Your task to perform on an android device: remove spam from my inbox in the gmail app Image 0: 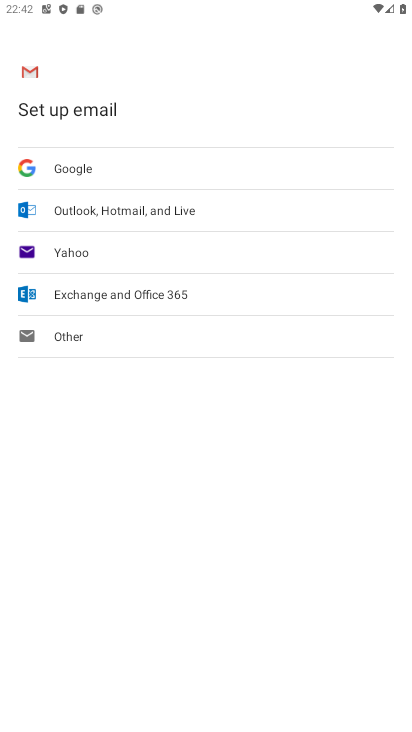
Step 0: press home button
Your task to perform on an android device: remove spam from my inbox in the gmail app Image 1: 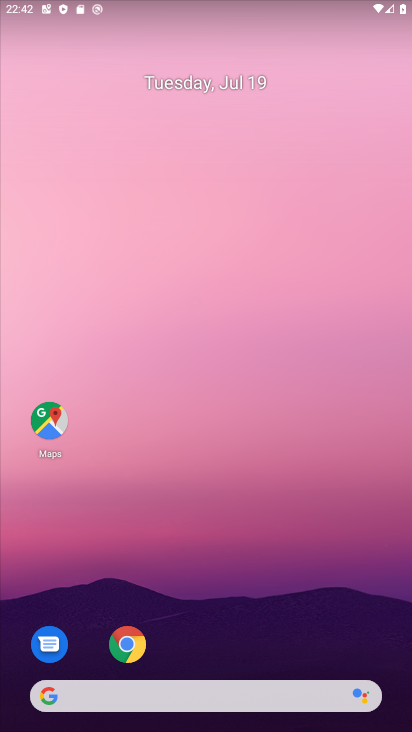
Step 1: drag from (235, 728) to (236, 340)
Your task to perform on an android device: remove spam from my inbox in the gmail app Image 2: 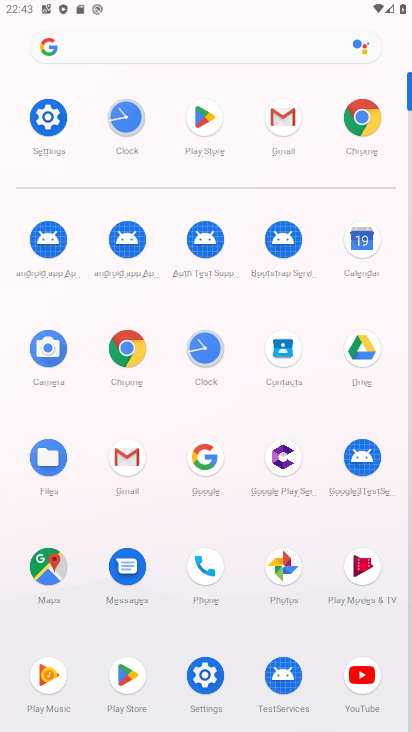
Step 2: click (121, 459)
Your task to perform on an android device: remove spam from my inbox in the gmail app Image 3: 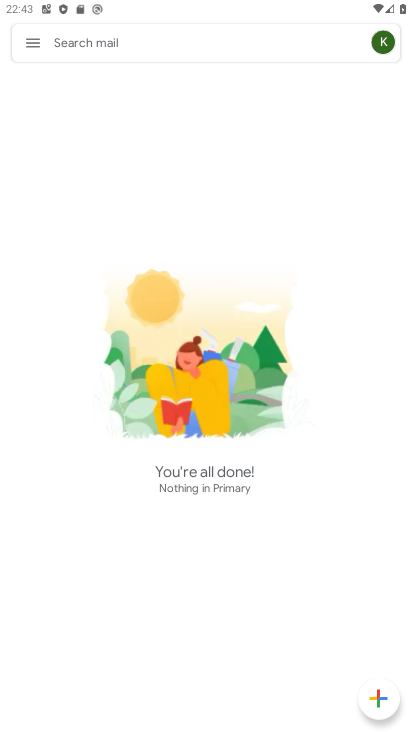
Step 3: task complete